Your task to perform on an android device: Open Youtube and go to "Your channel" Image 0: 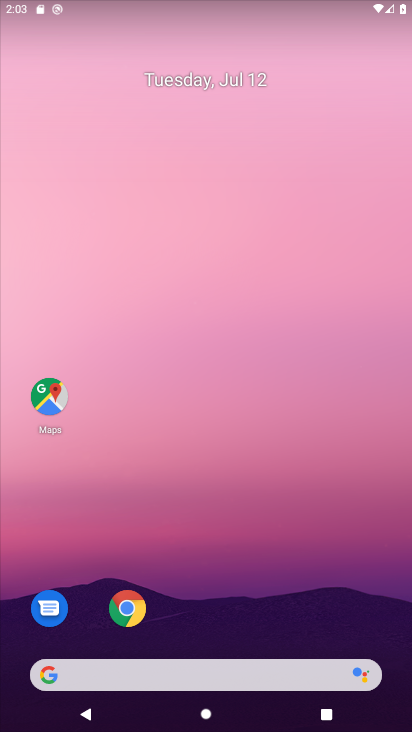
Step 0: drag from (219, 678) to (330, 228)
Your task to perform on an android device: Open Youtube and go to "Your channel" Image 1: 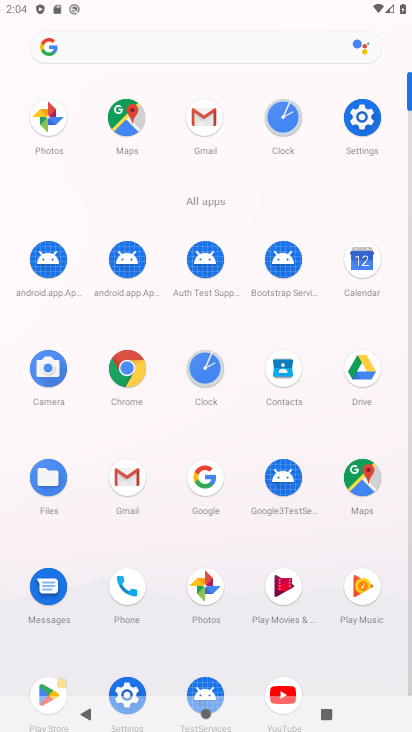
Step 1: click (288, 688)
Your task to perform on an android device: Open Youtube and go to "Your channel" Image 2: 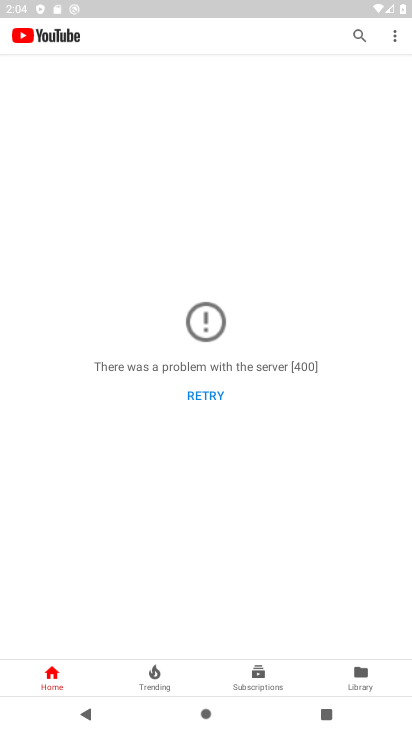
Step 2: click (207, 392)
Your task to perform on an android device: Open Youtube and go to "Your channel" Image 3: 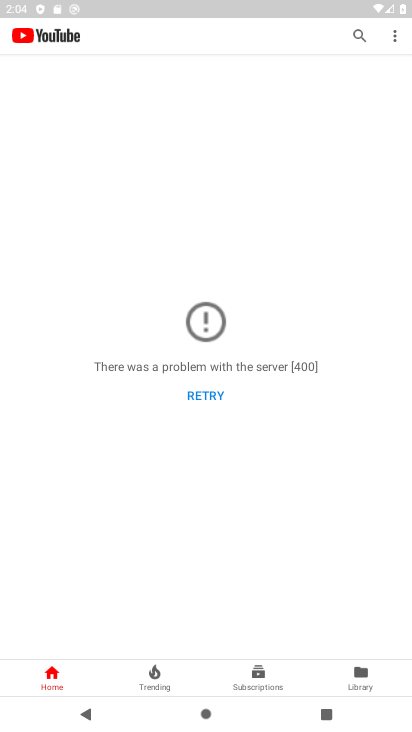
Step 3: click (207, 392)
Your task to perform on an android device: Open Youtube and go to "Your channel" Image 4: 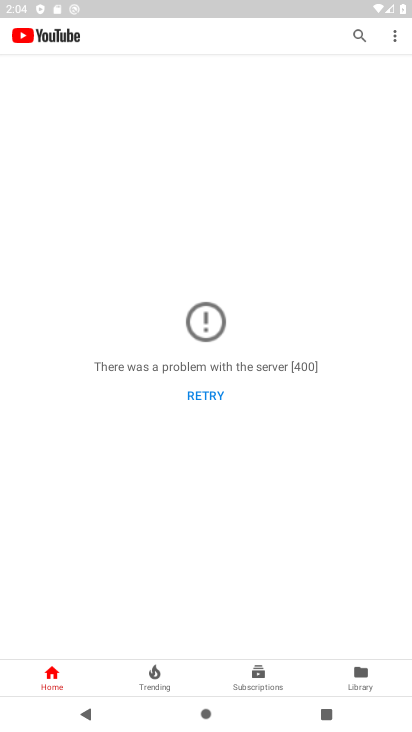
Step 4: click (207, 392)
Your task to perform on an android device: Open Youtube and go to "Your channel" Image 5: 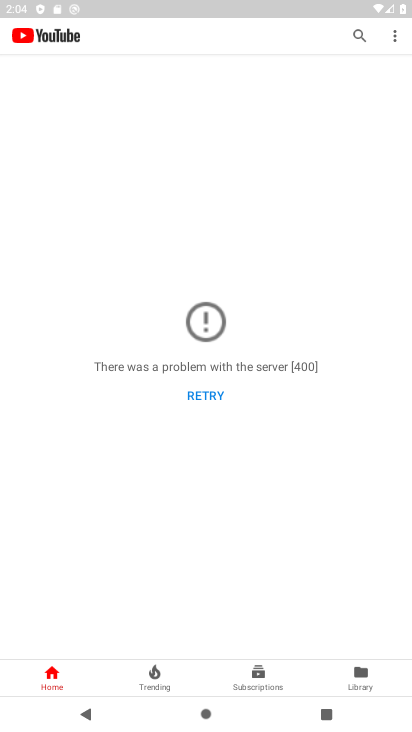
Step 5: click (207, 391)
Your task to perform on an android device: Open Youtube and go to "Your channel" Image 6: 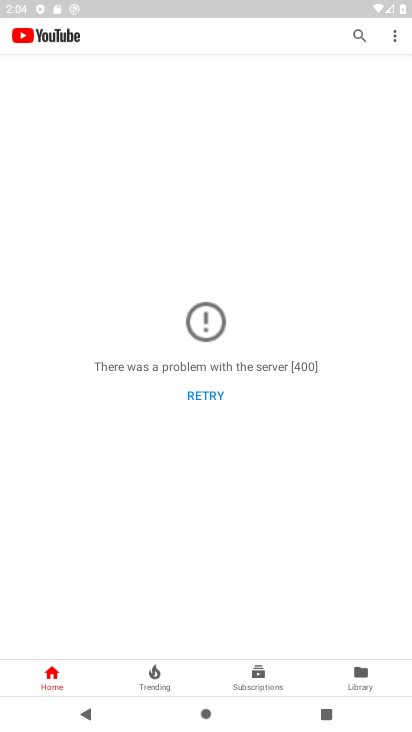
Step 6: click (360, 670)
Your task to perform on an android device: Open Youtube and go to "Your channel" Image 7: 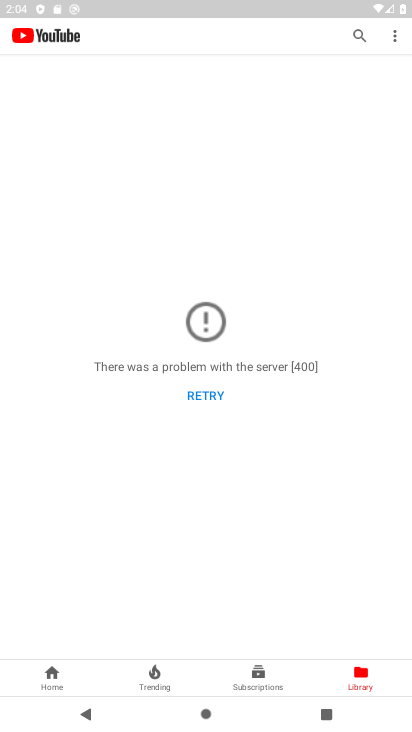
Step 7: click (205, 387)
Your task to perform on an android device: Open Youtube and go to "Your channel" Image 8: 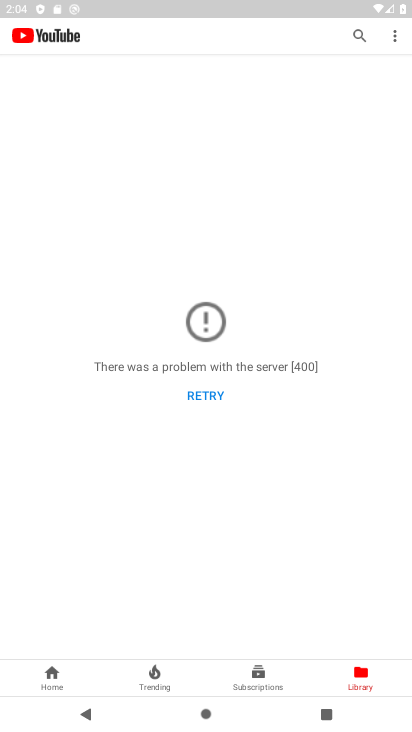
Step 8: task complete